Your task to perform on an android device: What's on my calendar today? Image 0: 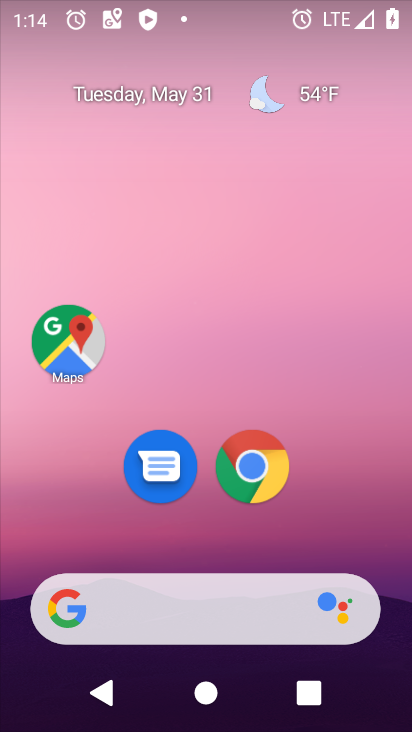
Step 0: drag from (196, 594) to (159, 10)
Your task to perform on an android device: What's on my calendar today? Image 1: 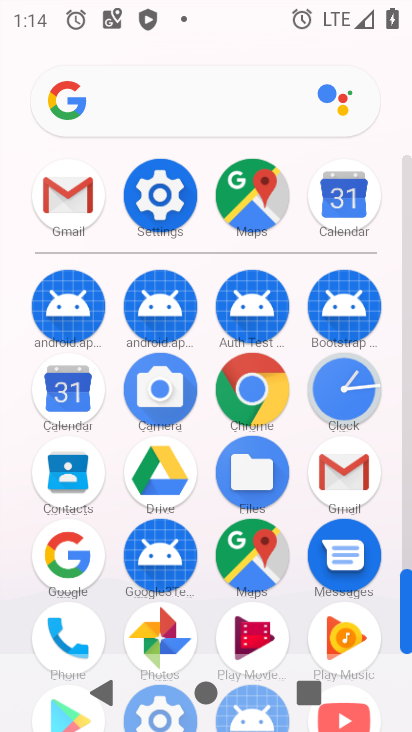
Step 1: click (80, 410)
Your task to perform on an android device: What's on my calendar today? Image 2: 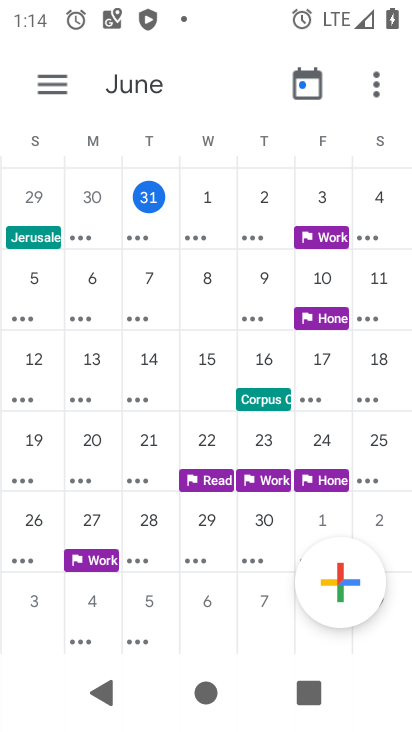
Step 2: click (57, 80)
Your task to perform on an android device: What's on my calendar today? Image 3: 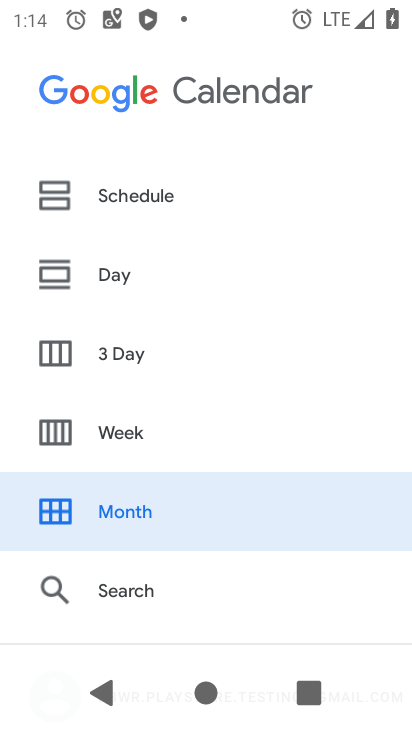
Step 3: click (137, 192)
Your task to perform on an android device: What's on my calendar today? Image 4: 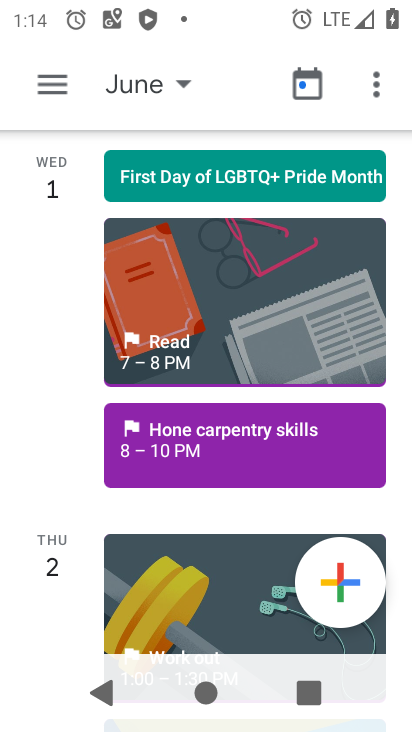
Step 4: click (151, 82)
Your task to perform on an android device: What's on my calendar today? Image 5: 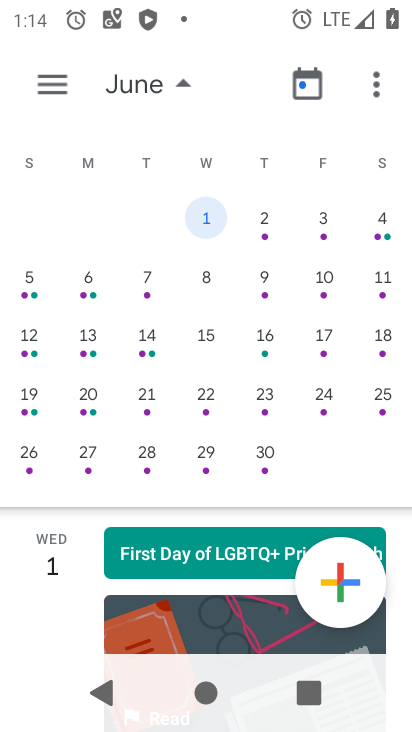
Step 5: drag from (89, 344) to (379, 380)
Your task to perform on an android device: What's on my calendar today? Image 6: 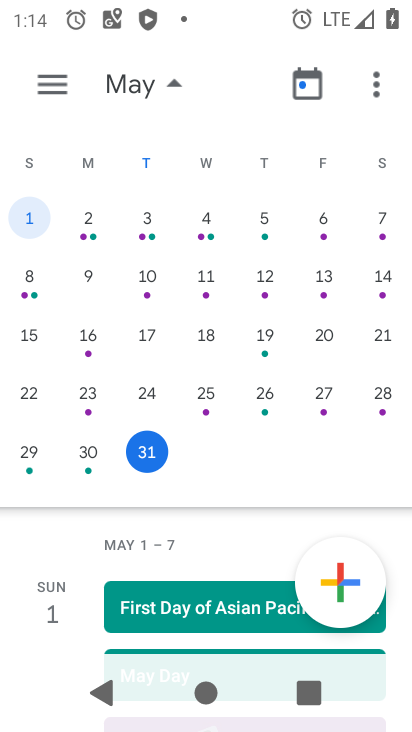
Step 6: click (147, 450)
Your task to perform on an android device: What's on my calendar today? Image 7: 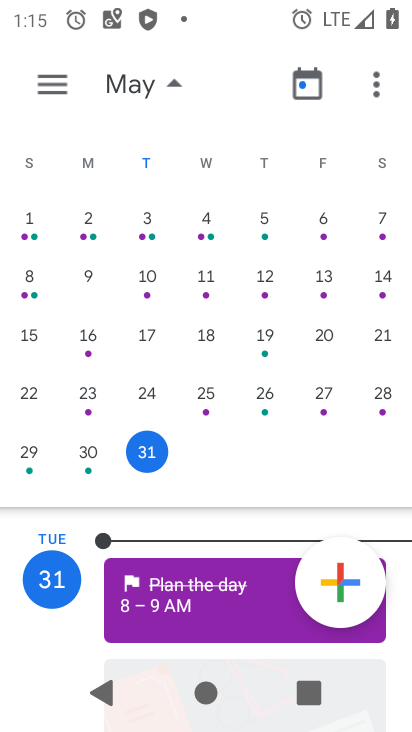
Step 7: click (153, 77)
Your task to perform on an android device: What's on my calendar today? Image 8: 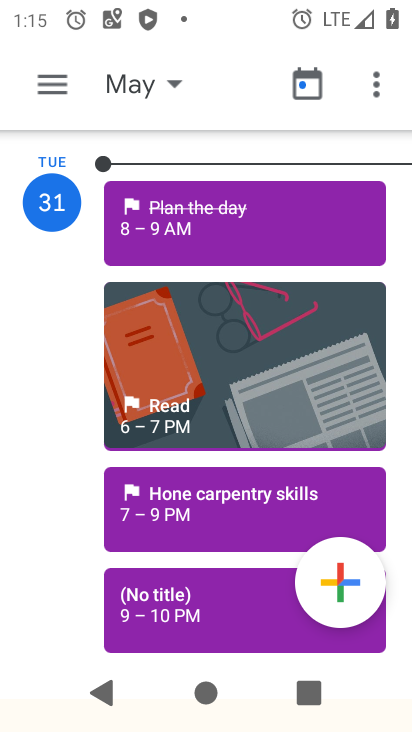
Step 8: task complete